Your task to perform on an android device: Play the latest video from the Wall Street Journal Image 0: 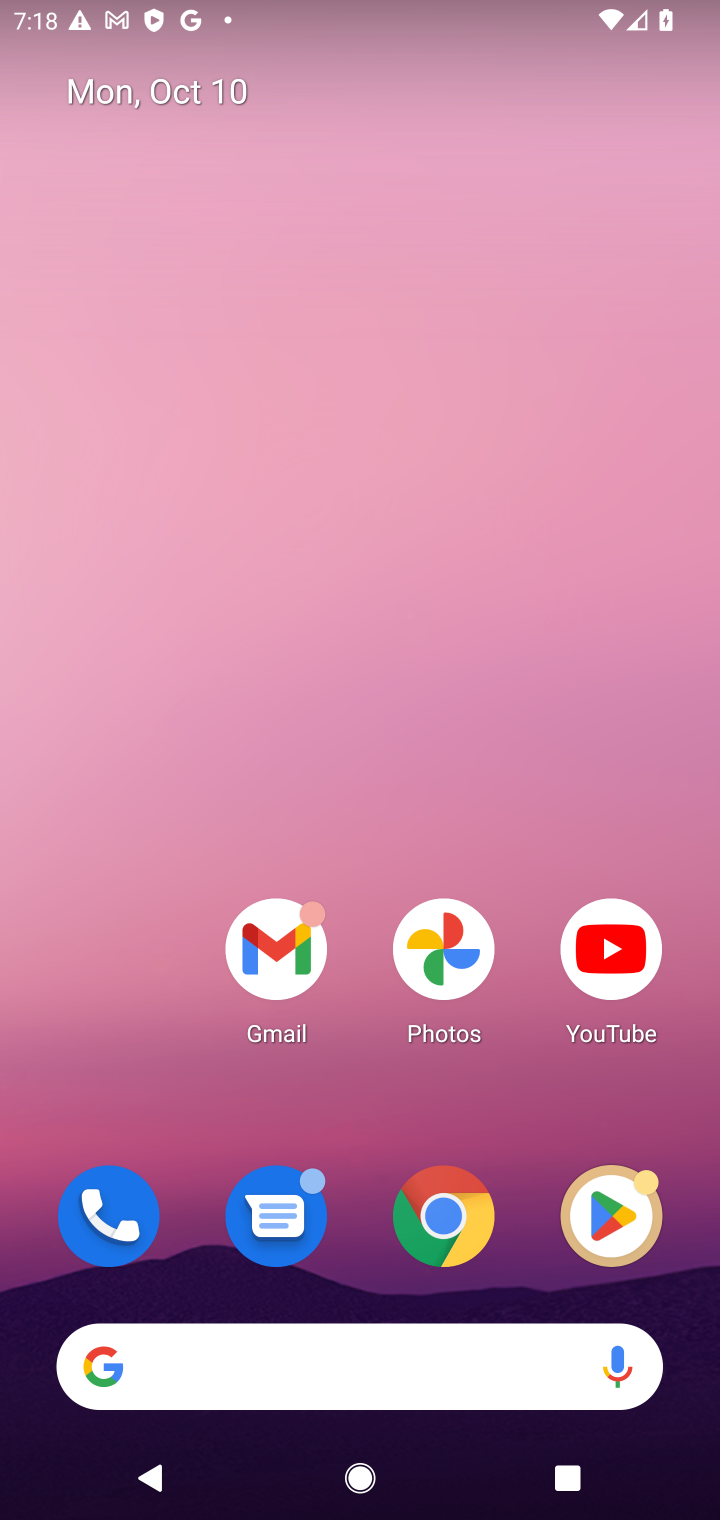
Step 0: drag from (418, 1278) to (381, 11)
Your task to perform on an android device: Play the latest video from the Wall Street Journal Image 1: 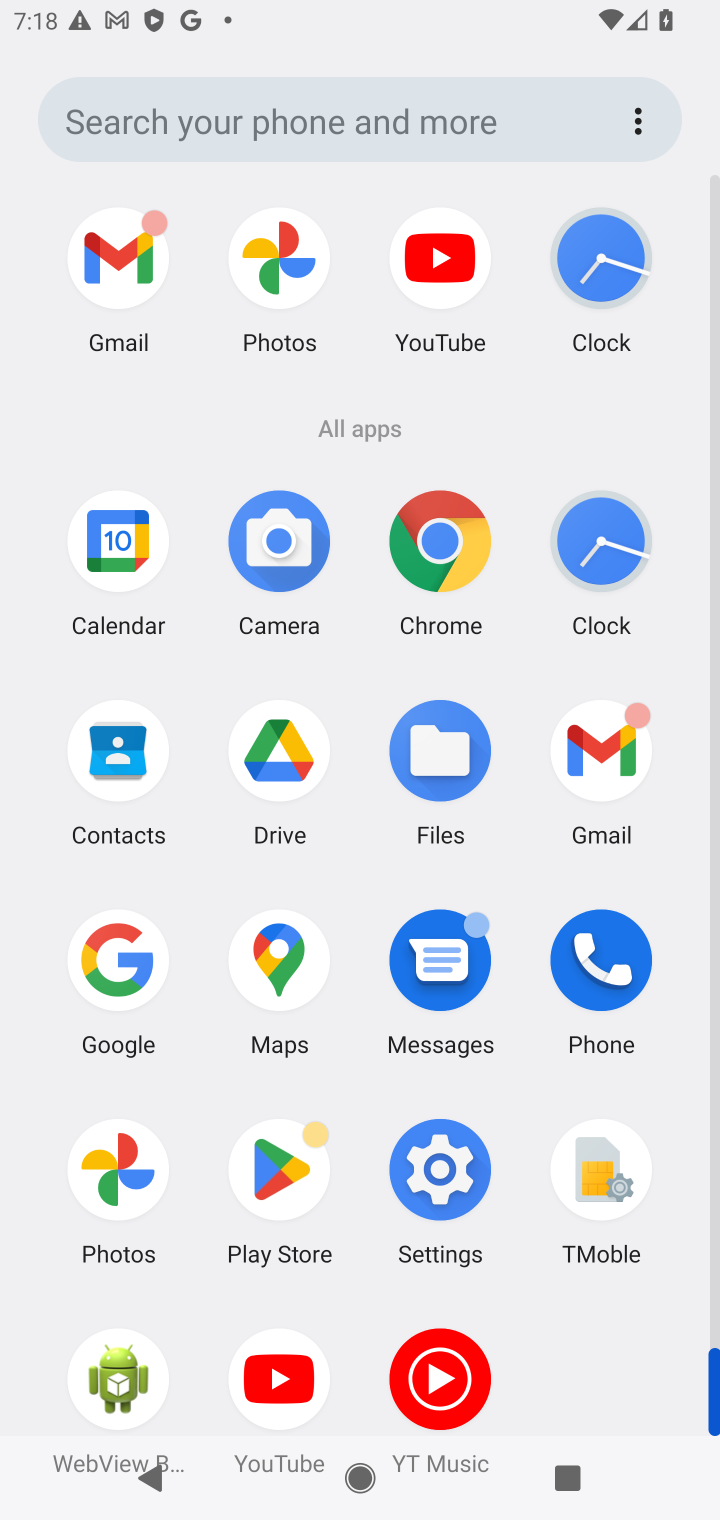
Step 1: click (127, 958)
Your task to perform on an android device: Play the latest video from the Wall Street Journal Image 2: 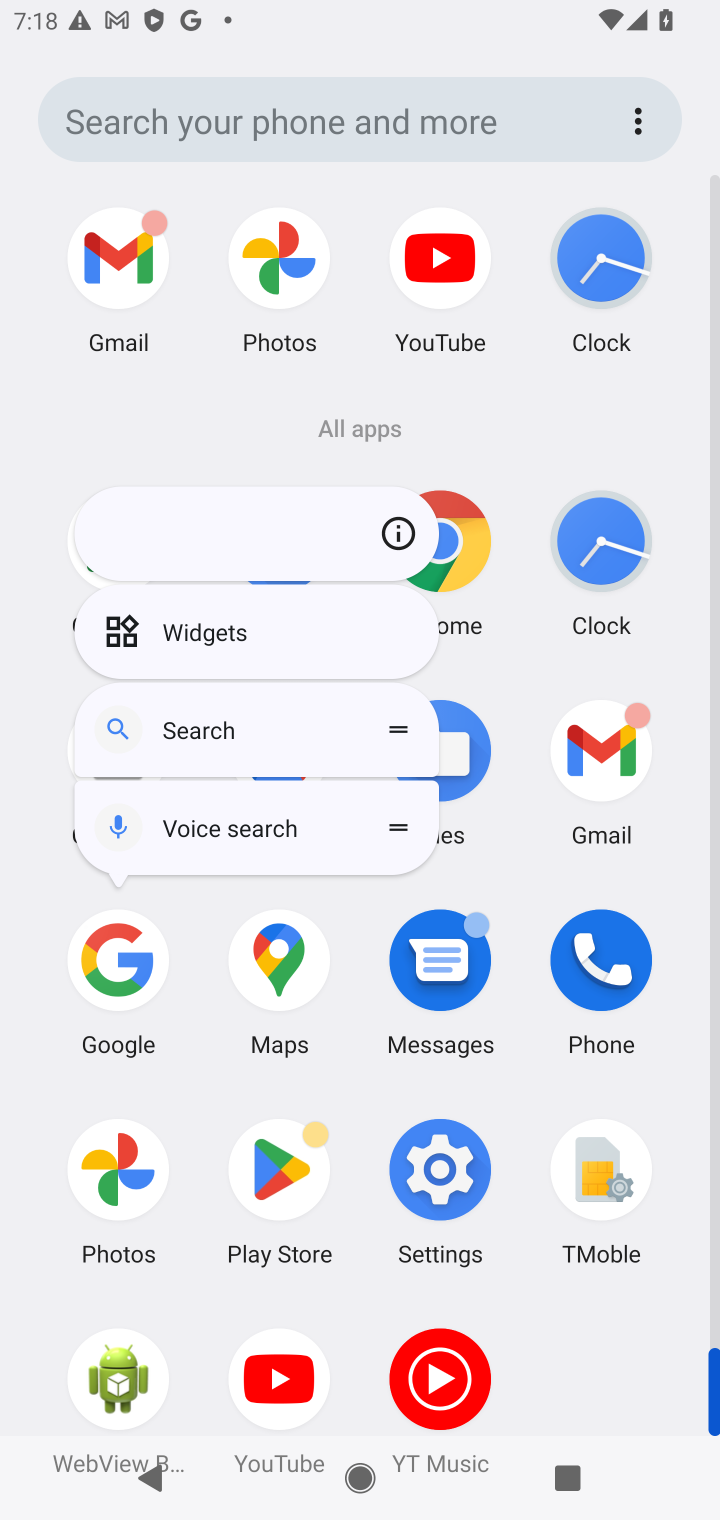
Step 2: click (117, 961)
Your task to perform on an android device: Play the latest video from the Wall Street Journal Image 3: 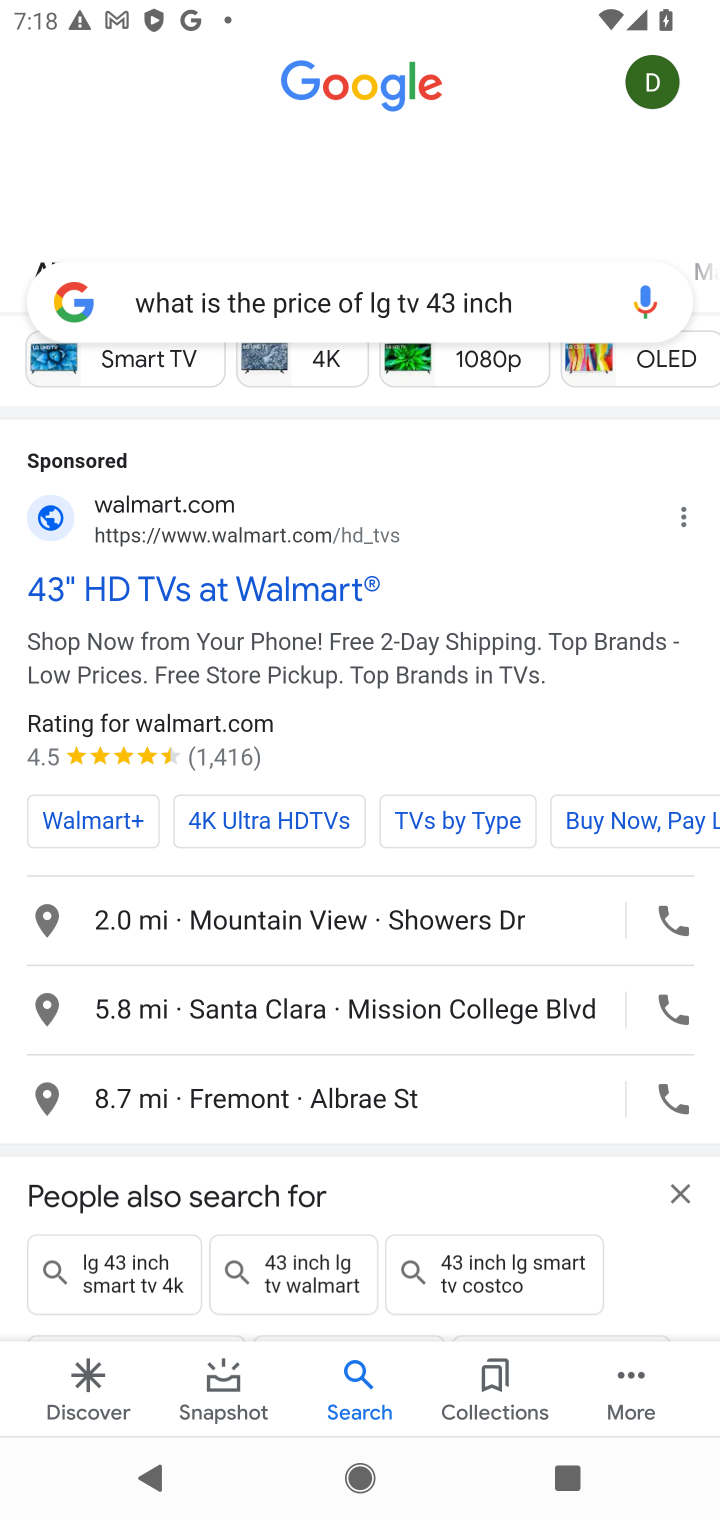
Step 3: click (314, 309)
Your task to perform on an android device: Play the latest video from the Wall Street Journal Image 4: 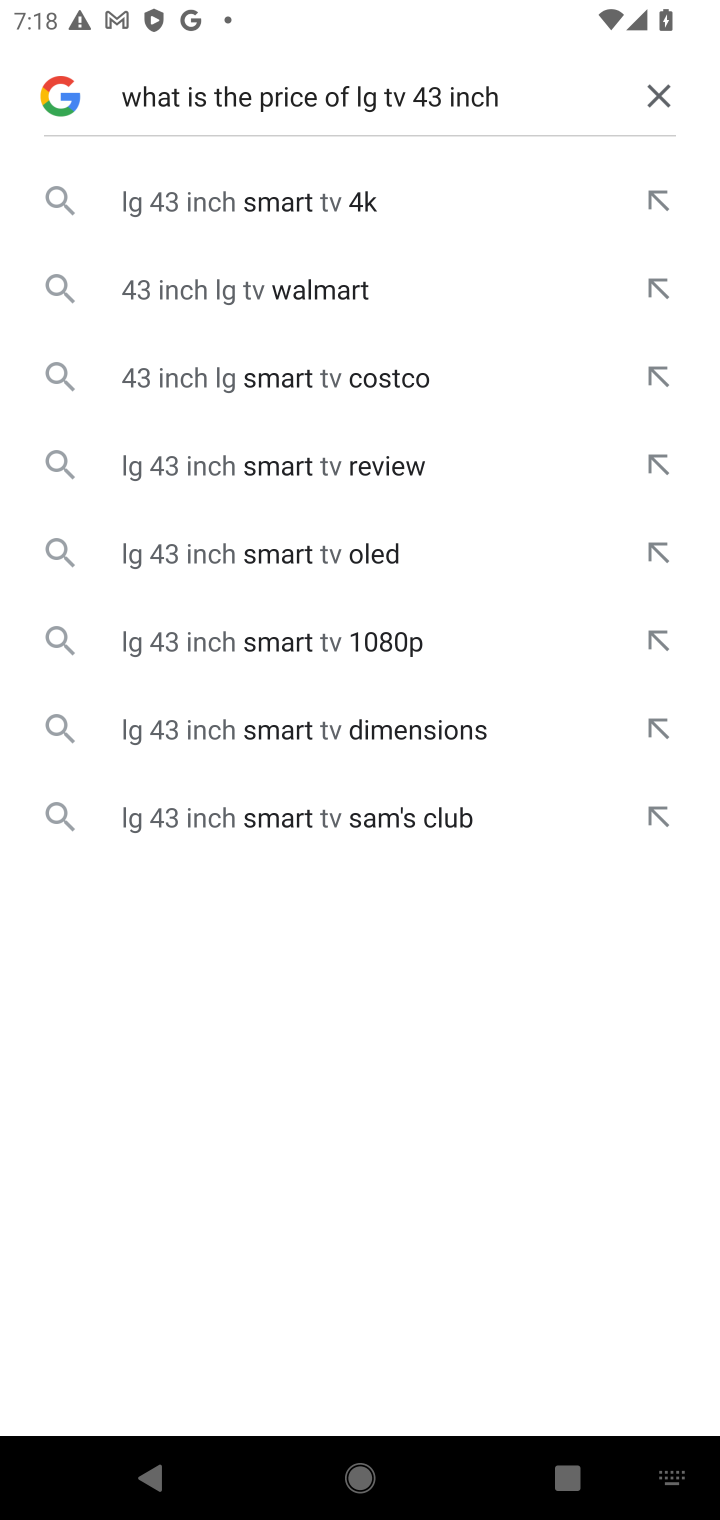
Step 4: click (651, 98)
Your task to perform on an android device: Play the latest video from the Wall Street Journal Image 5: 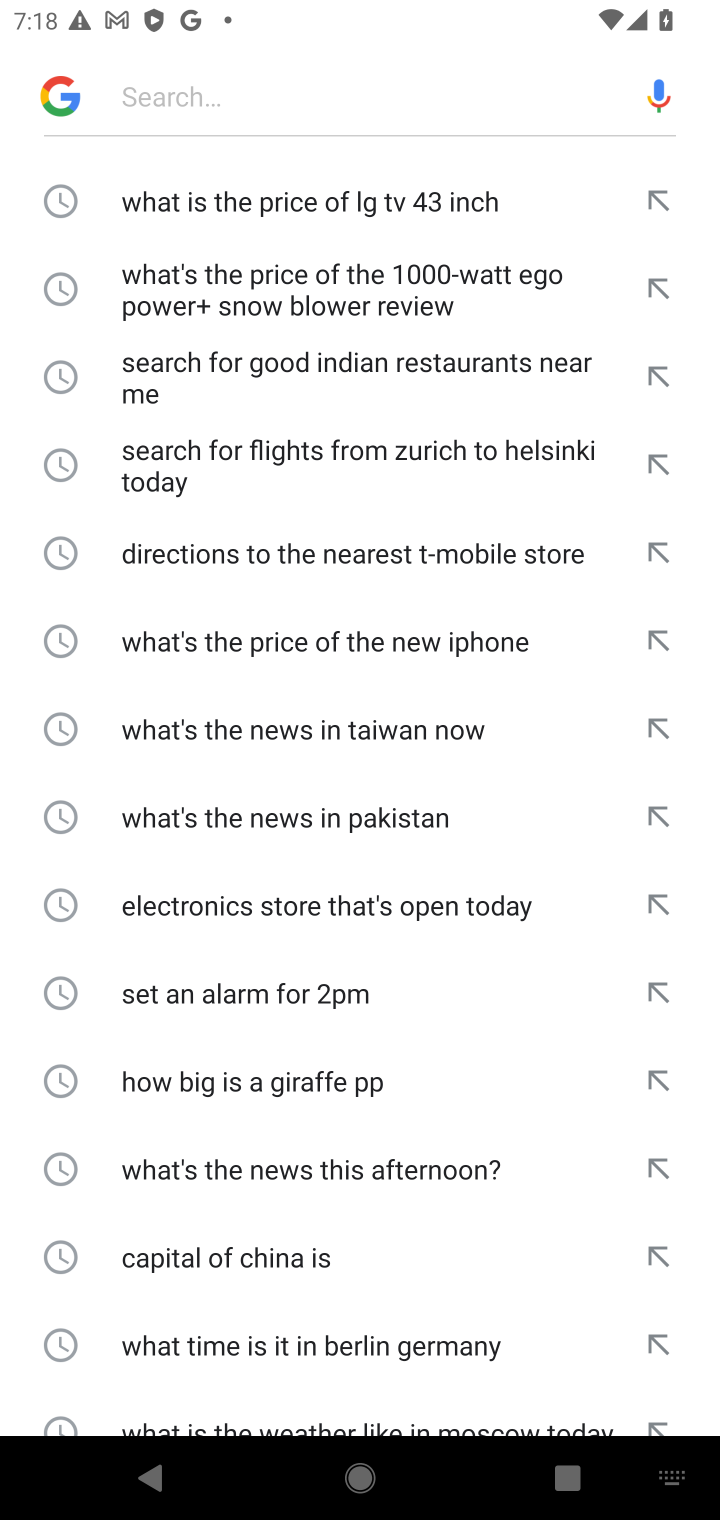
Step 5: type "Play the latest video from the Wall Street Journal"
Your task to perform on an android device: Play the latest video from the Wall Street Journal Image 6: 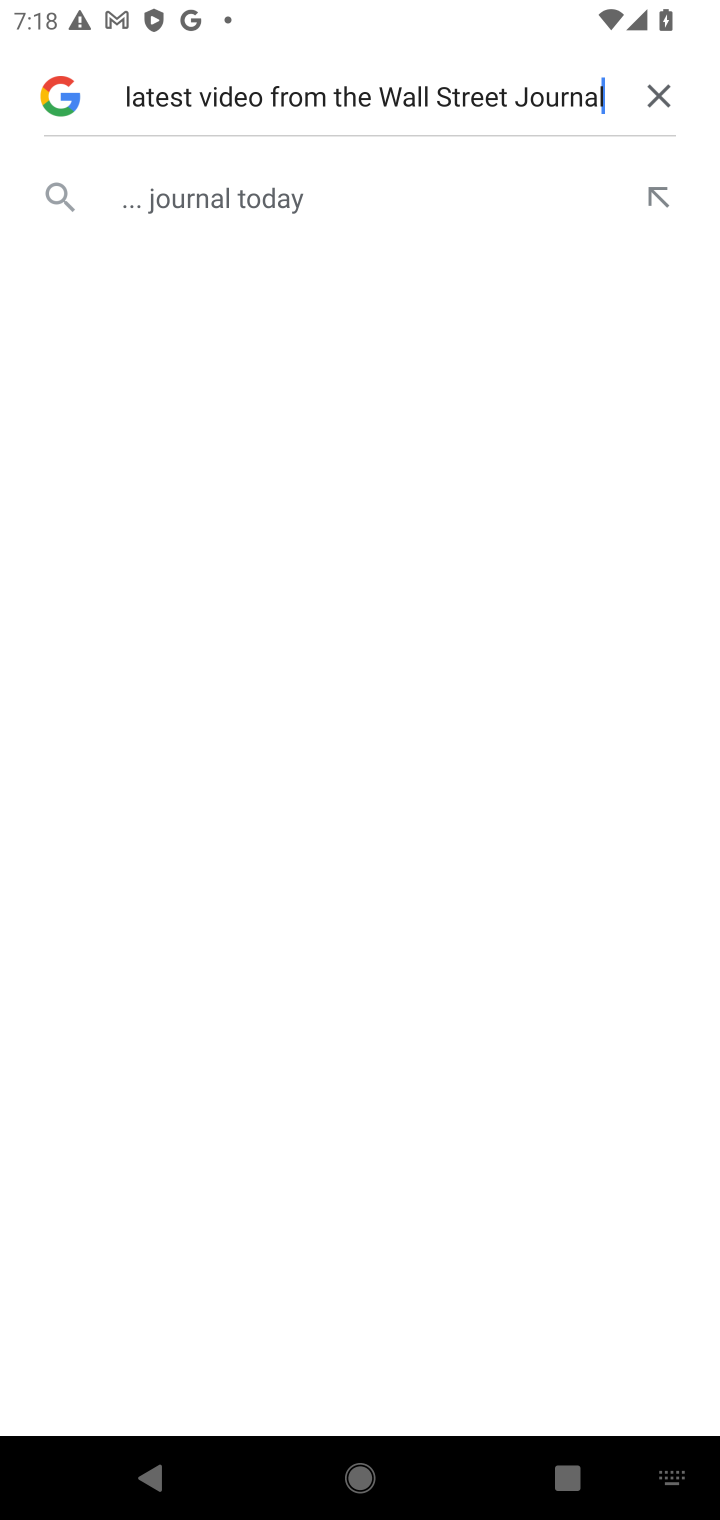
Step 6: click (146, 201)
Your task to perform on an android device: Play the latest video from the Wall Street Journal Image 7: 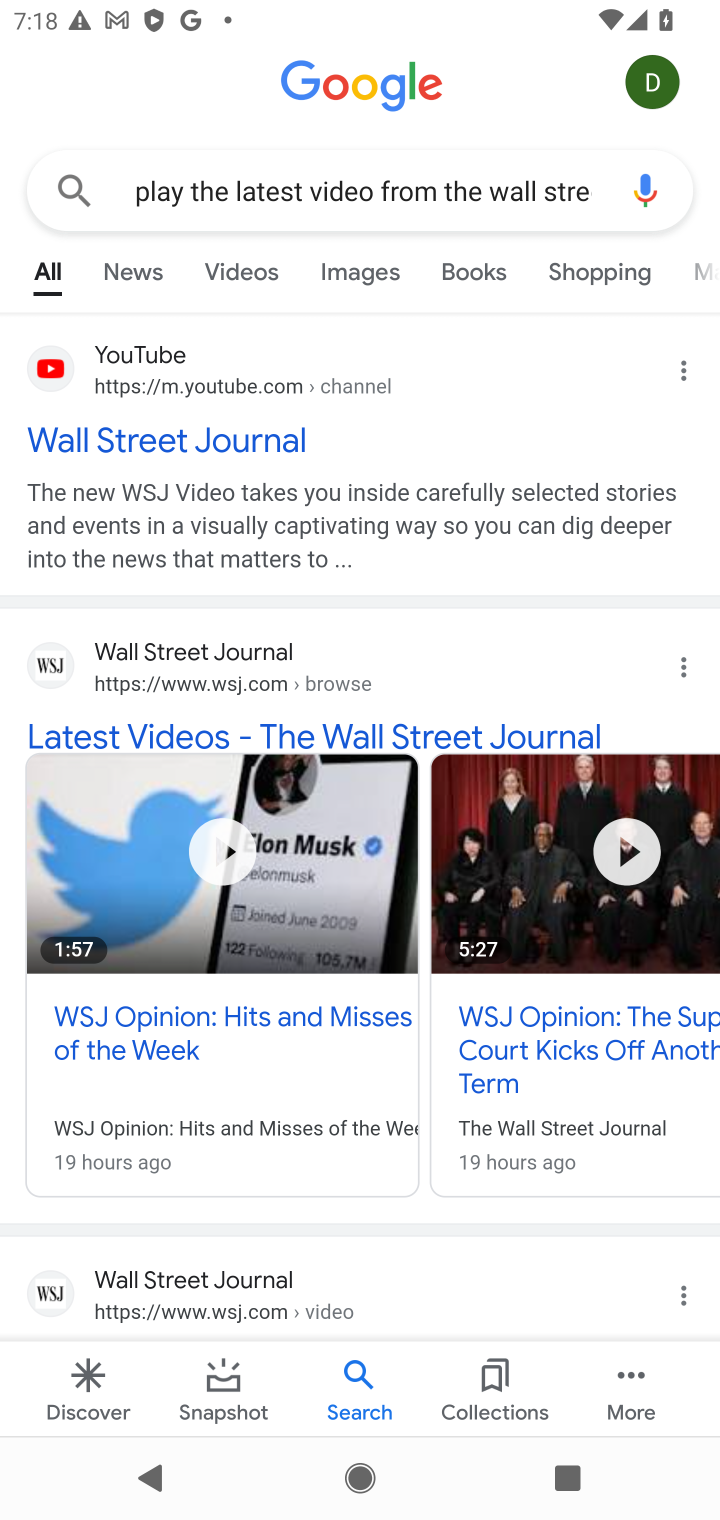
Step 7: click (206, 450)
Your task to perform on an android device: Play the latest video from the Wall Street Journal Image 8: 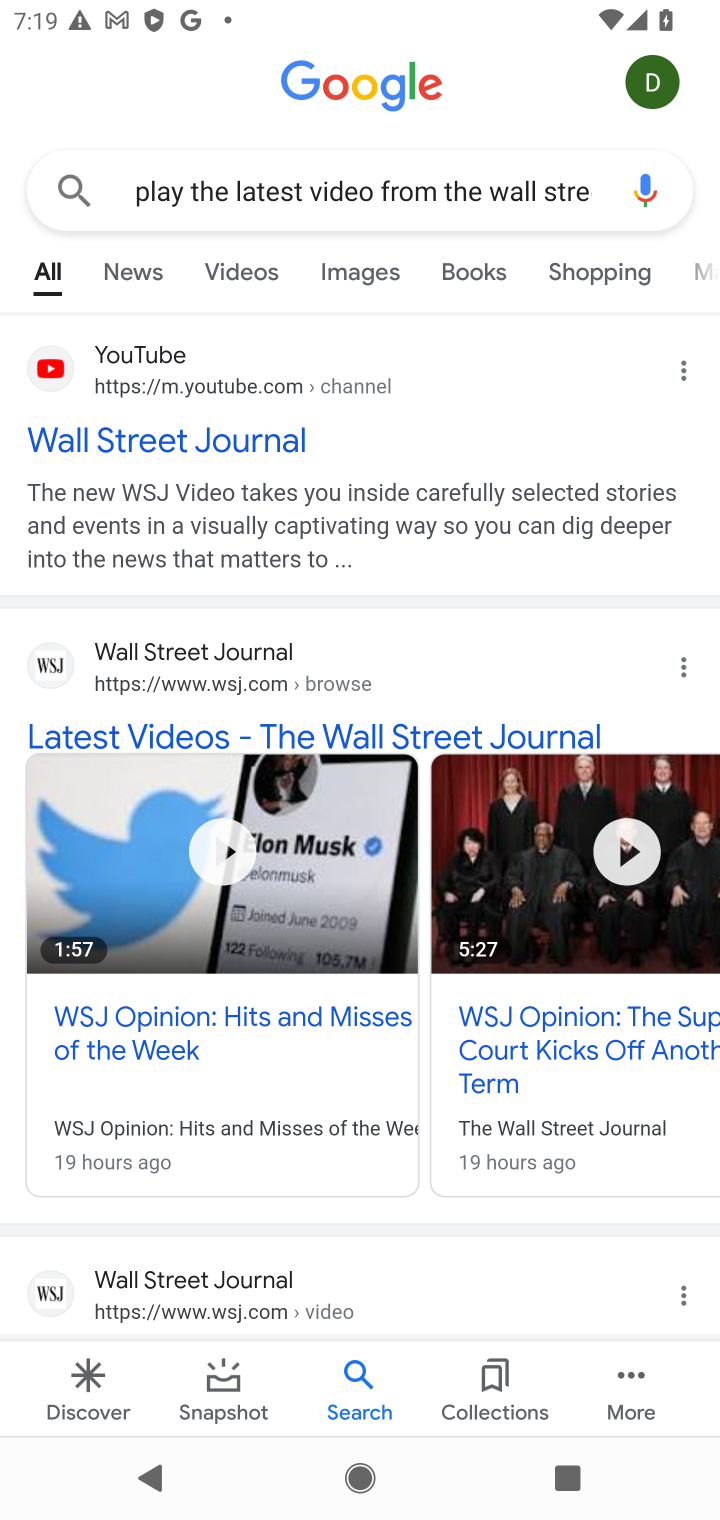
Step 8: click (213, 436)
Your task to perform on an android device: Play the latest video from the Wall Street Journal Image 9: 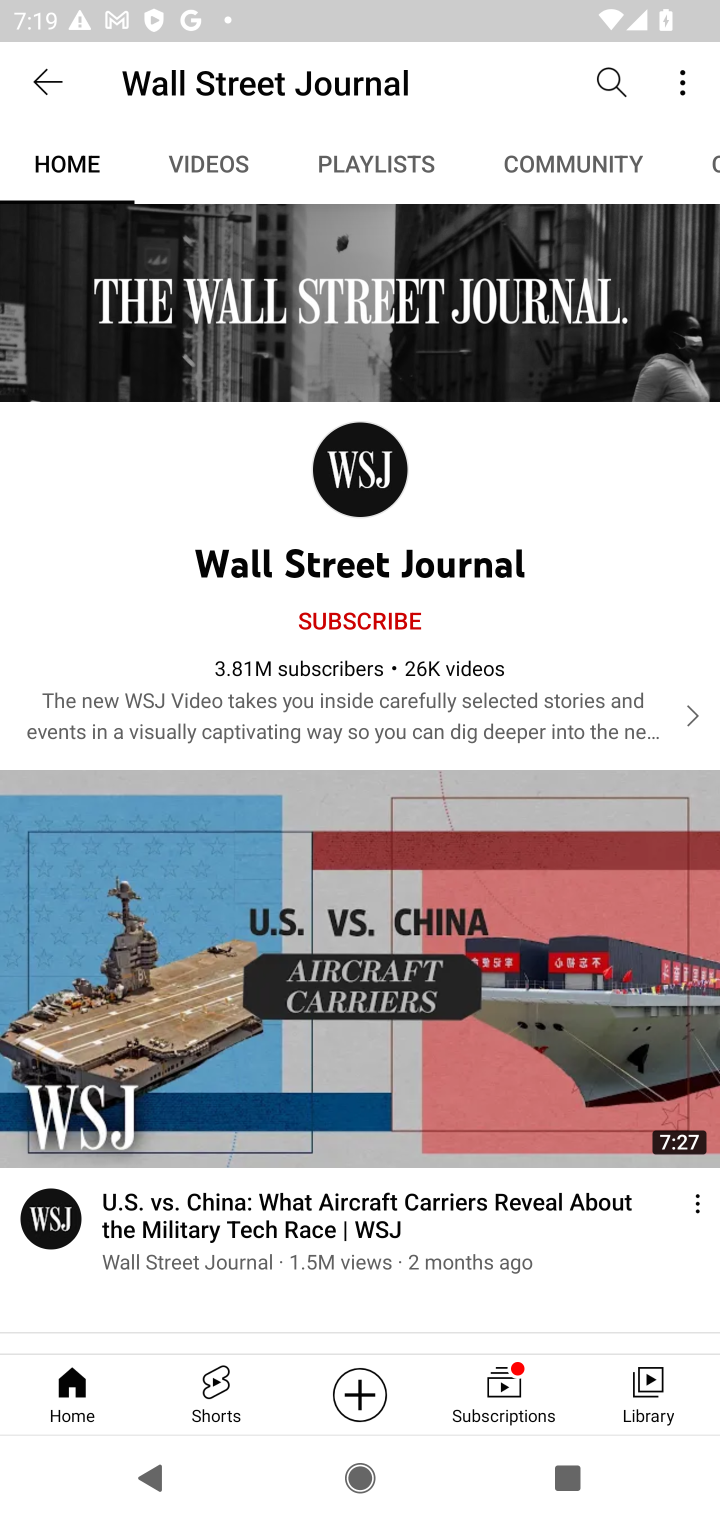
Step 9: task complete